Your task to perform on an android device: visit the assistant section in the google photos Image 0: 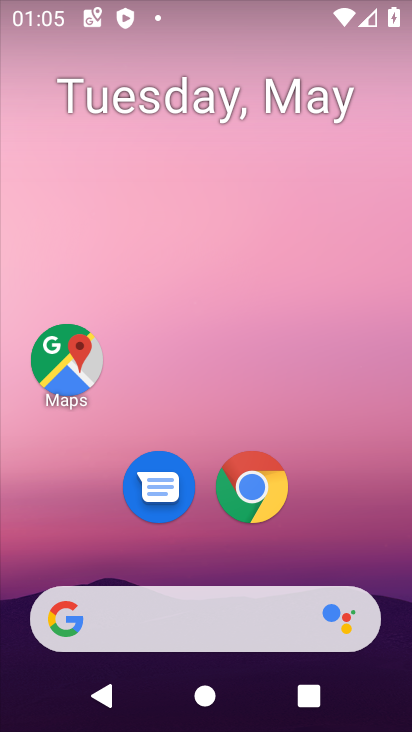
Step 0: drag from (314, 541) to (279, 49)
Your task to perform on an android device: visit the assistant section in the google photos Image 1: 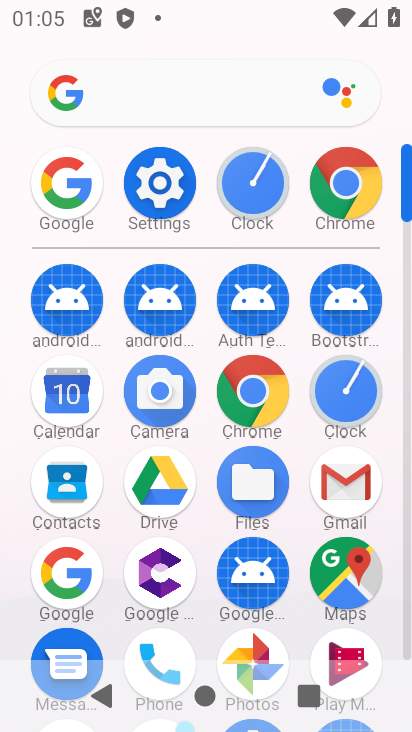
Step 1: drag from (274, 609) to (314, 340)
Your task to perform on an android device: visit the assistant section in the google photos Image 2: 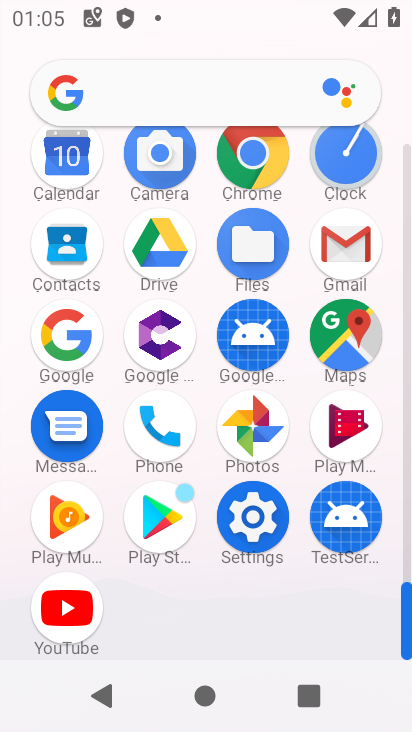
Step 2: click (258, 404)
Your task to perform on an android device: visit the assistant section in the google photos Image 3: 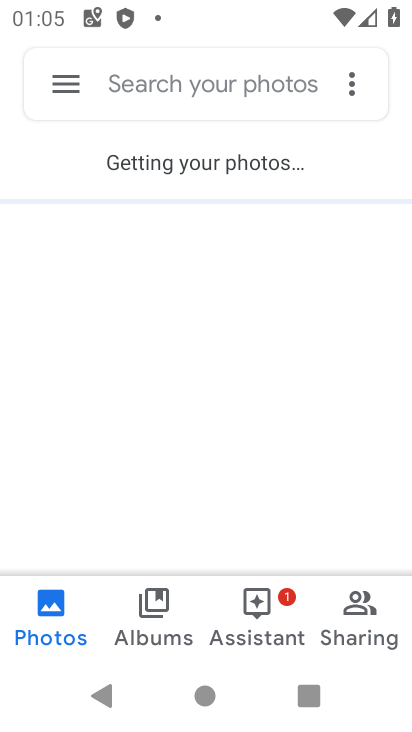
Step 3: click (255, 600)
Your task to perform on an android device: visit the assistant section in the google photos Image 4: 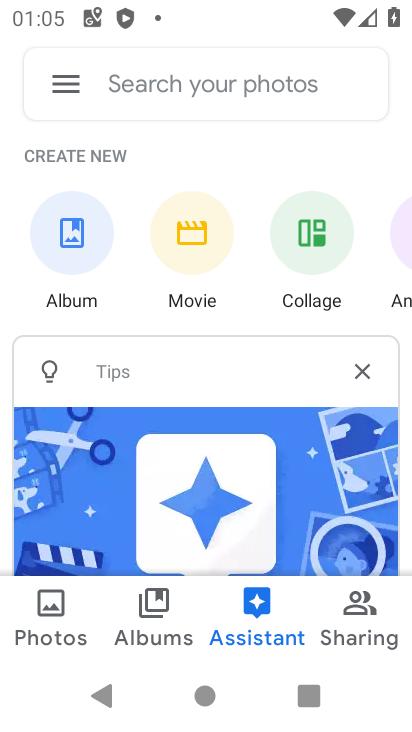
Step 4: task complete